Your task to perform on an android device: What is the news today? Image 0: 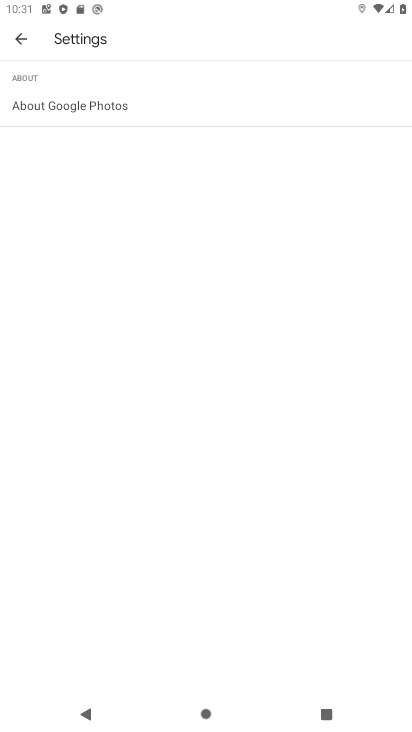
Step 0: press home button
Your task to perform on an android device: What is the news today? Image 1: 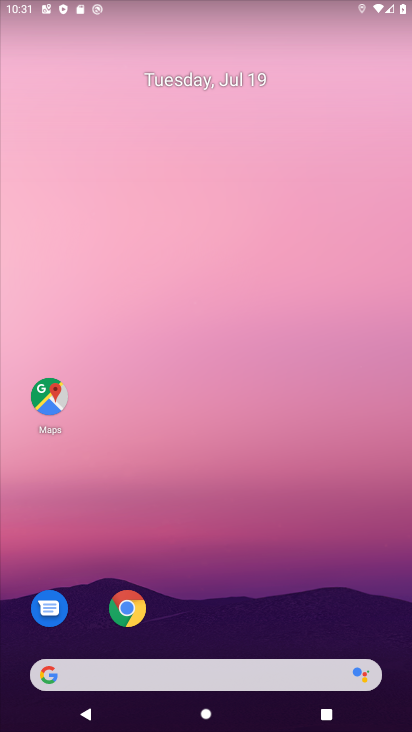
Step 1: click (183, 677)
Your task to perform on an android device: What is the news today? Image 2: 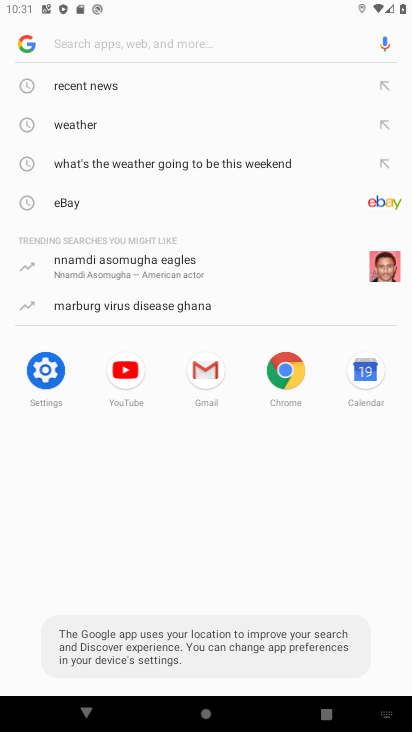
Step 2: click (84, 92)
Your task to perform on an android device: What is the news today? Image 3: 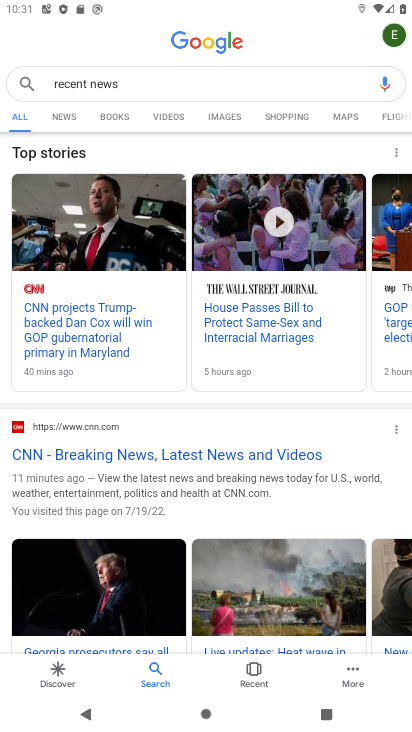
Step 3: task complete